Your task to perform on an android device: Search for sushi restaurants on Maps Image 0: 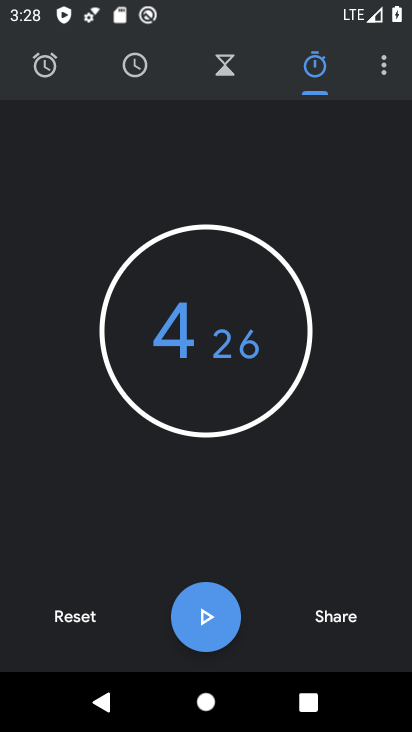
Step 0: press home button
Your task to perform on an android device: Search for sushi restaurants on Maps Image 1: 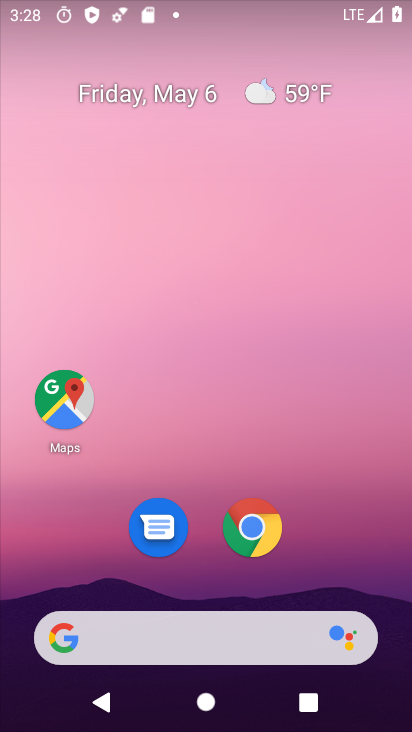
Step 1: drag from (311, 562) to (261, 190)
Your task to perform on an android device: Search for sushi restaurants on Maps Image 2: 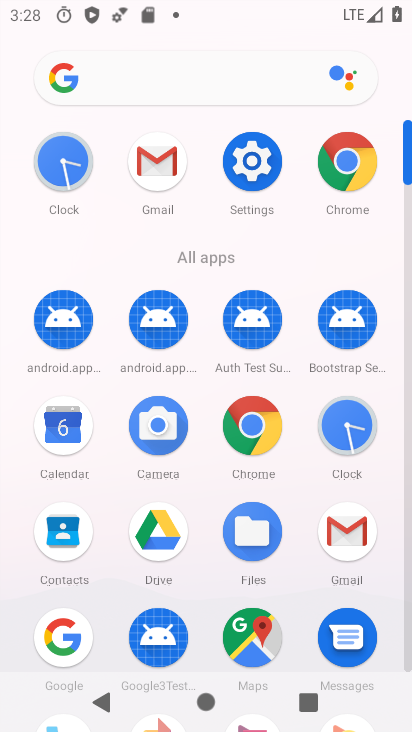
Step 2: click (253, 649)
Your task to perform on an android device: Search for sushi restaurants on Maps Image 3: 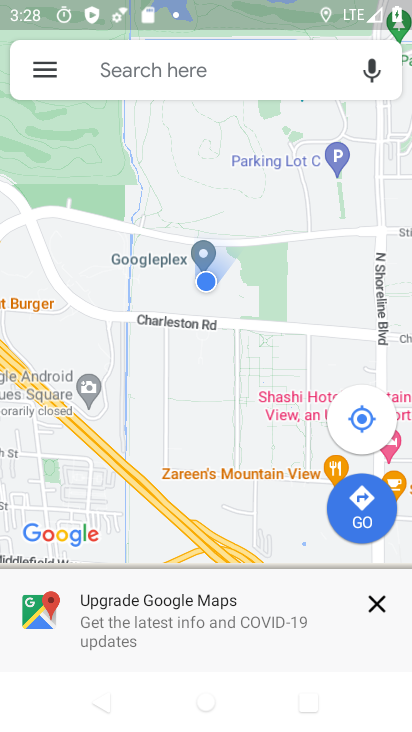
Step 3: click (166, 57)
Your task to perform on an android device: Search for sushi restaurants on Maps Image 4: 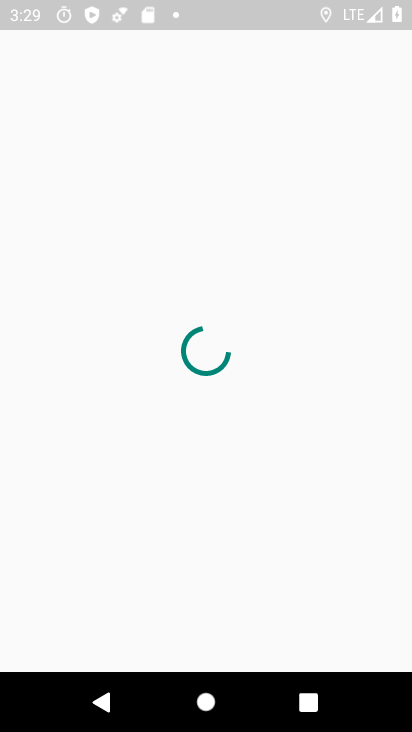
Step 4: click (164, 79)
Your task to perform on an android device: Search for sushi restaurants on Maps Image 5: 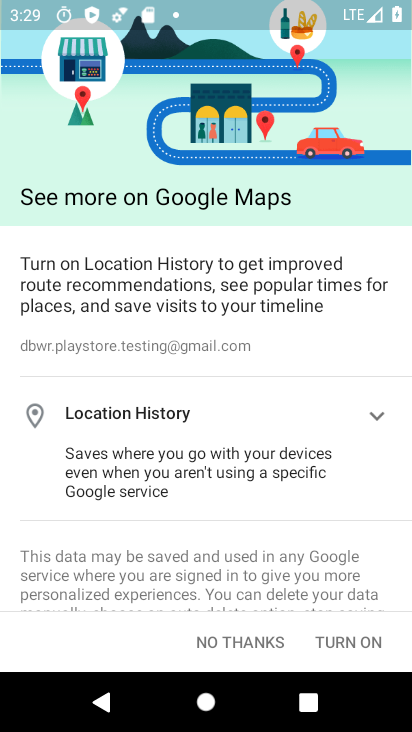
Step 5: click (241, 639)
Your task to perform on an android device: Search for sushi restaurants on Maps Image 6: 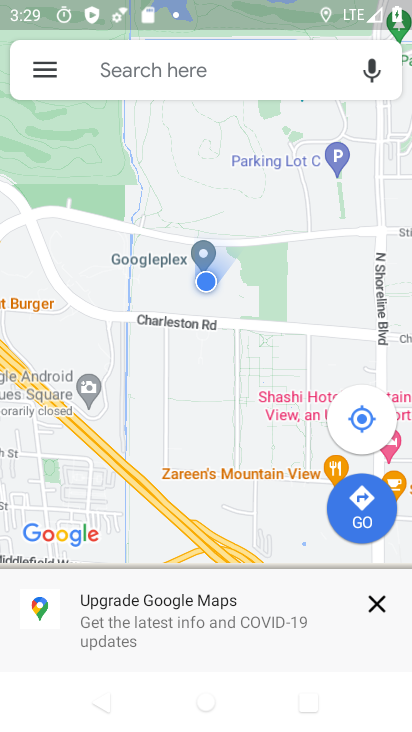
Step 6: click (162, 68)
Your task to perform on an android device: Search for sushi restaurants on Maps Image 7: 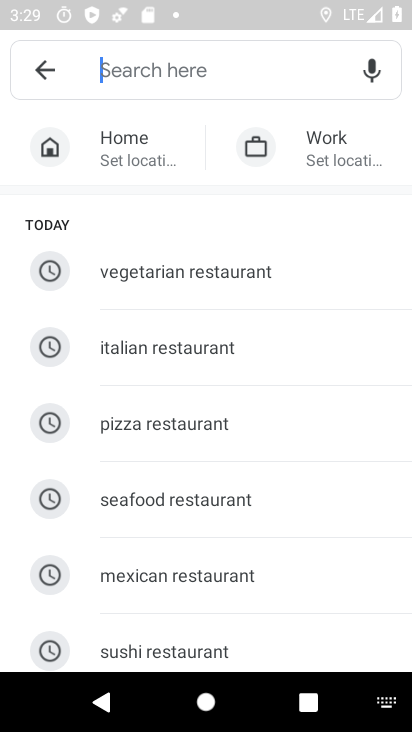
Step 7: click (196, 639)
Your task to perform on an android device: Search for sushi restaurants on Maps Image 8: 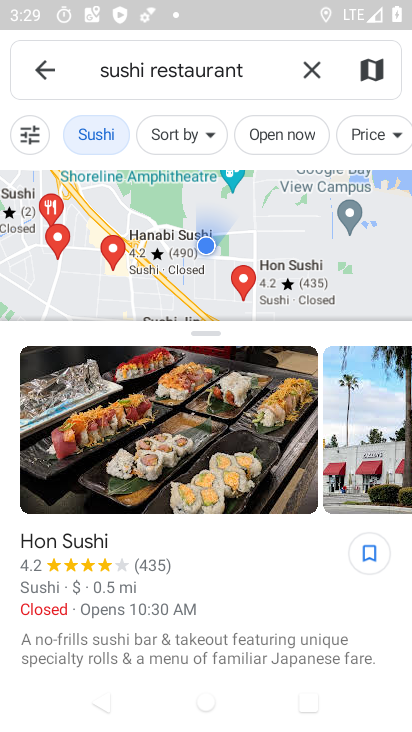
Step 8: task complete